Your task to perform on an android device: check the backup settings in the google photos Image 0: 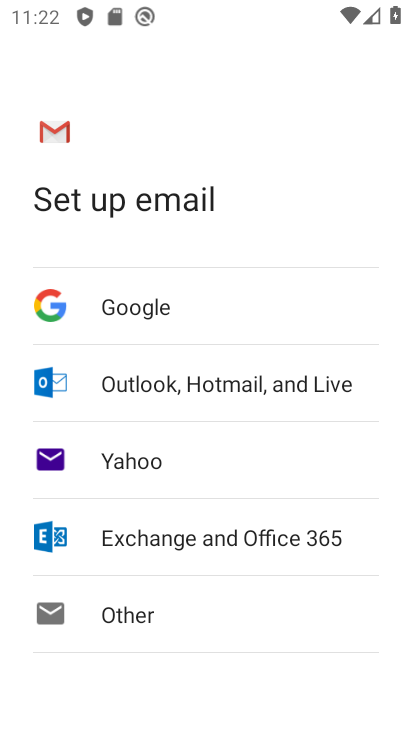
Step 0: press home button
Your task to perform on an android device: check the backup settings in the google photos Image 1: 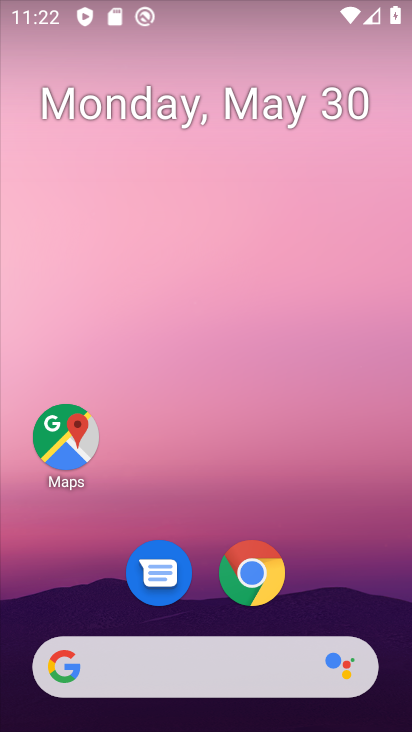
Step 1: drag from (156, 579) to (156, 3)
Your task to perform on an android device: check the backup settings in the google photos Image 2: 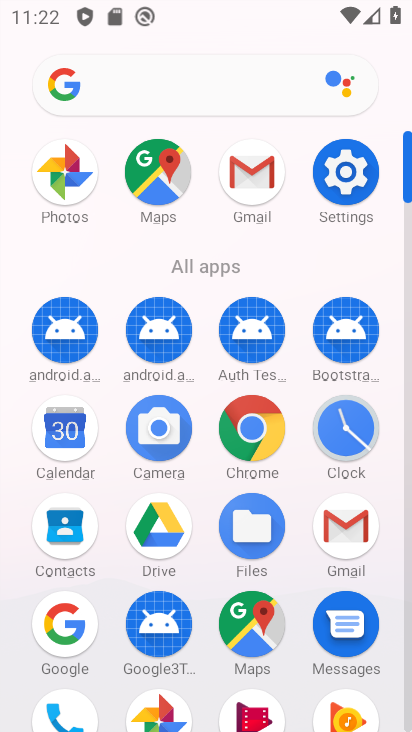
Step 2: click (77, 178)
Your task to perform on an android device: check the backup settings in the google photos Image 3: 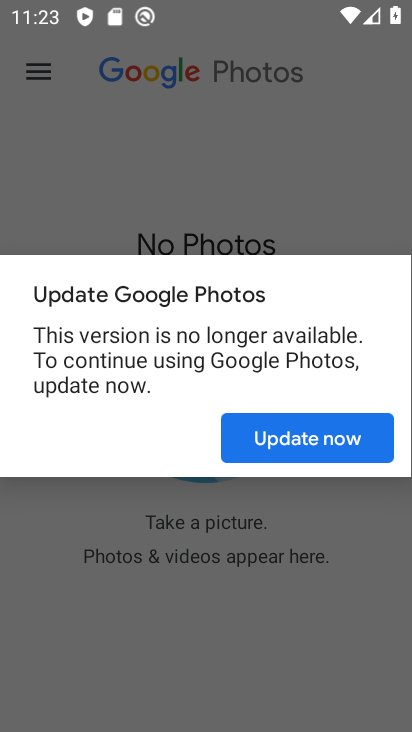
Step 3: click (306, 445)
Your task to perform on an android device: check the backup settings in the google photos Image 4: 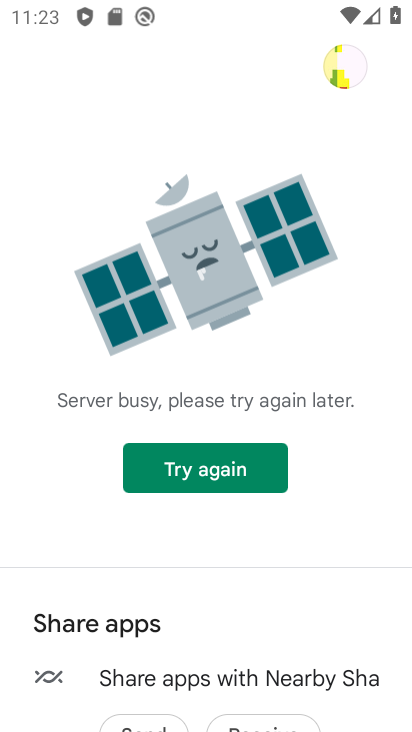
Step 4: click (198, 477)
Your task to perform on an android device: check the backup settings in the google photos Image 5: 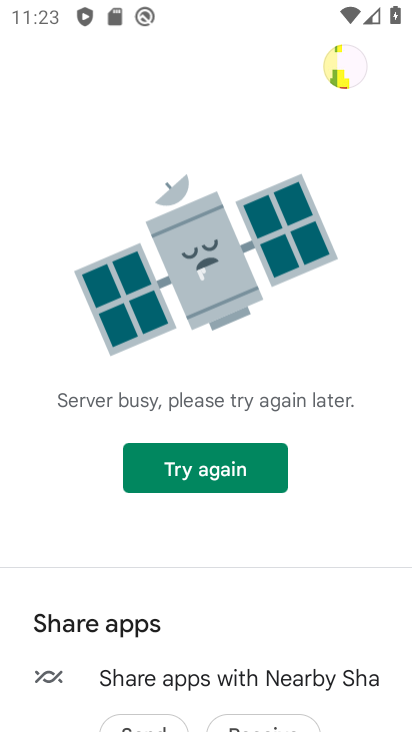
Step 5: task complete